Your task to perform on an android device: Open maps Image 0: 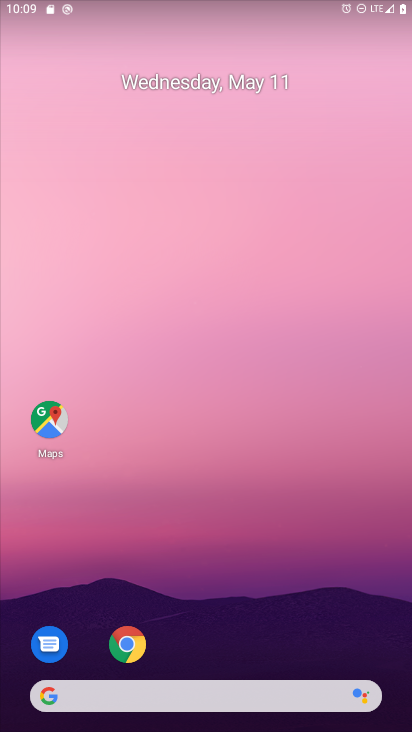
Step 0: click (40, 417)
Your task to perform on an android device: Open maps Image 1: 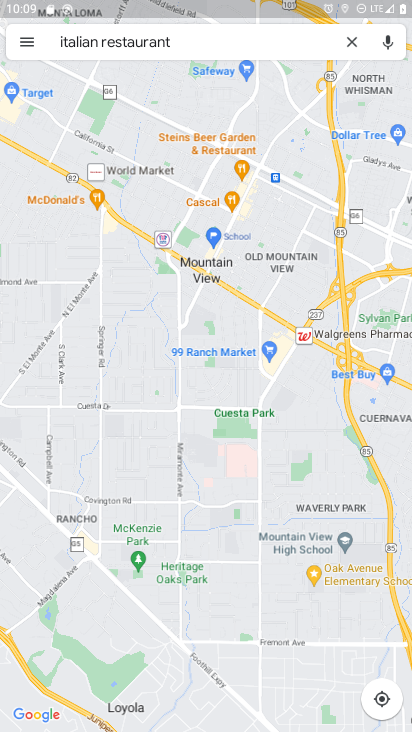
Step 1: task complete